Your task to perform on an android device: change the clock display to show seconds Image 0: 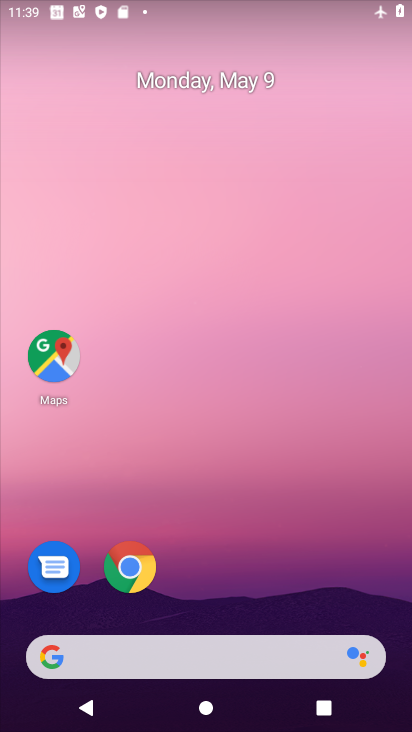
Step 0: drag from (396, 649) to (257, 106)
Your task to perform on an android device: change the clock display to show seconds Image 1: 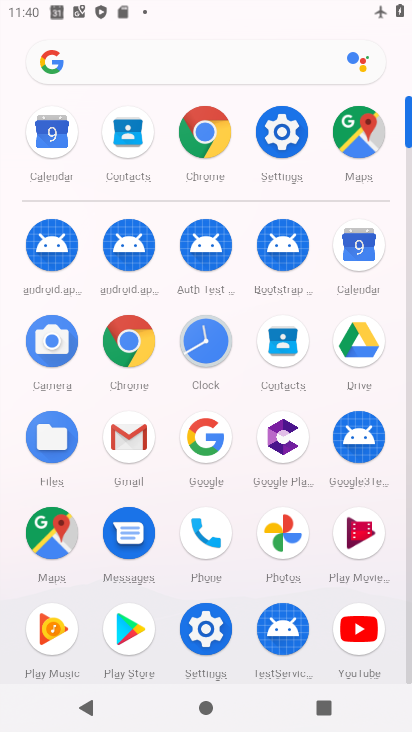
Step 1: click (224, 330)
Your task to perform on an android device: change the clock display to show seconds Image 2: 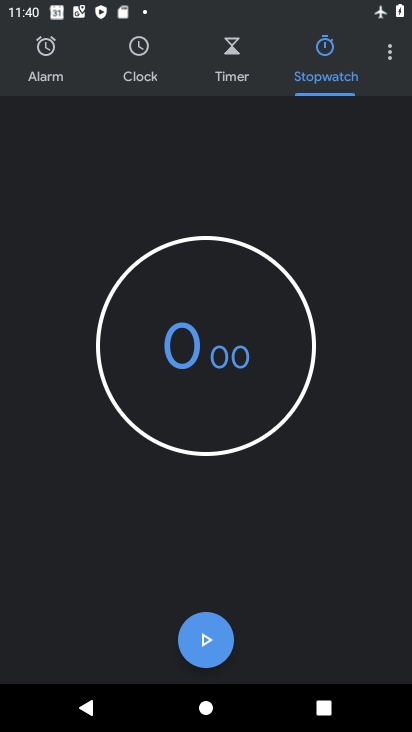
Step 2: click (388, 46)
Your task to perform on an android device: change the clock display to show seconds Image 3: 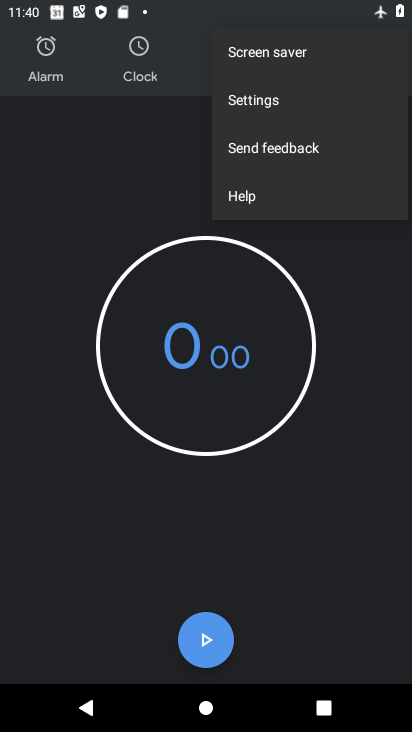
Step 3: click (340, 103)
Your task to perform on an android device: change the clock display to show seconds Image 4: 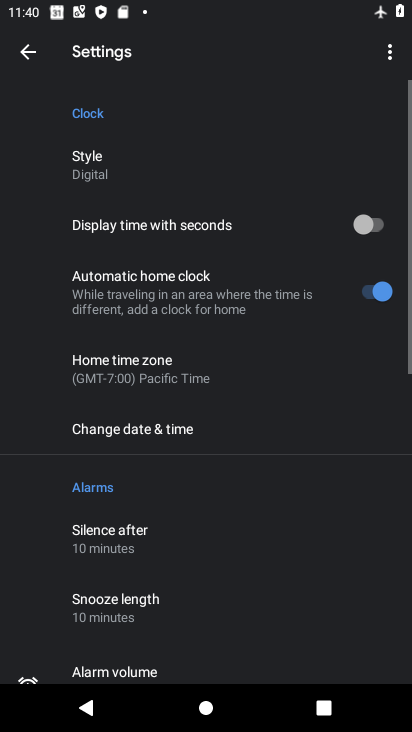
Step 4: click (354, 224)
Your task to perform on an android device: change the clock display to show seconds Image 5: 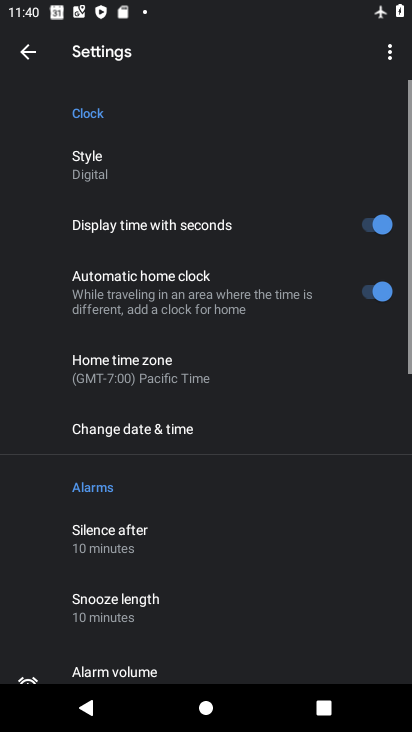
Step 5: task complete